Your task to perform on an android device: open app "Flipkart Online Shopping App" (install if not already installed) and enter user name: "fostered@gmail.com" and password: "negotiated" Image 0: 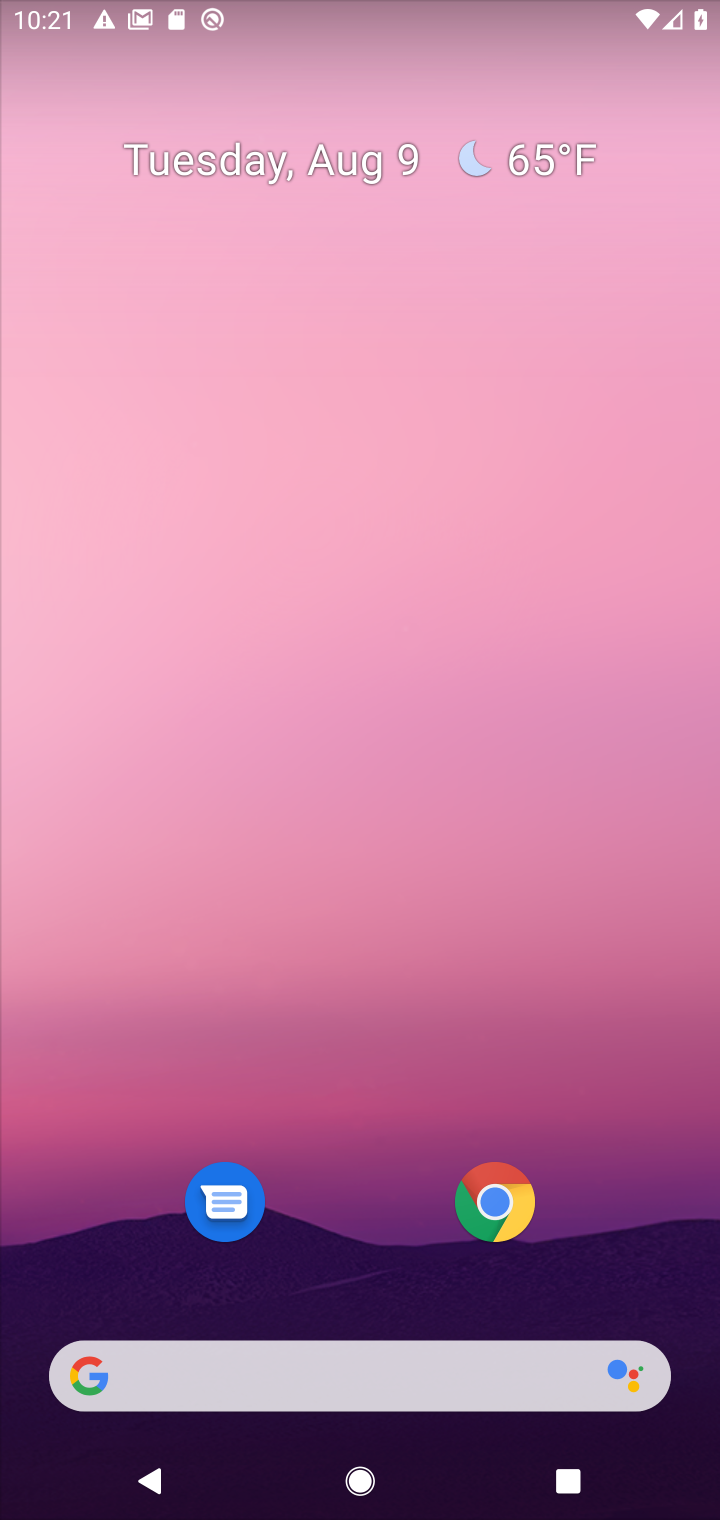
Step 0: drag from (382, 1281) to (440, 276)
Your task to perform on an android device: open app "Flipkart Online Shopping App" (install if not already installed) and enter user name: "fostered@gmail.com" and password: "negotiated" Image 1: 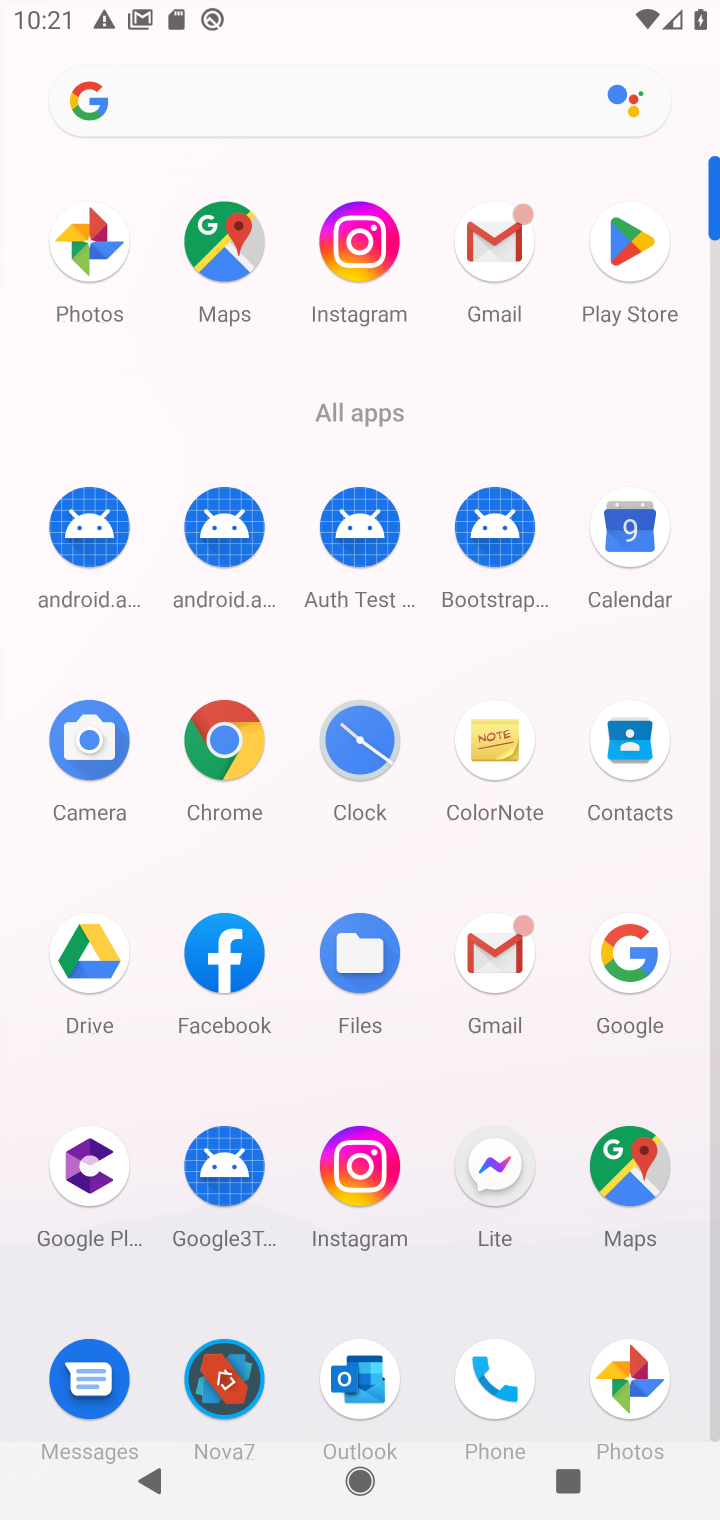
Step 1: click (631, 265)
Your task to perform on an android device: open app "Flipkart Online Shopping App" (install if not already installed) and enter user name: "fostered@gmail.com" and password: "negotiated" Image 2: 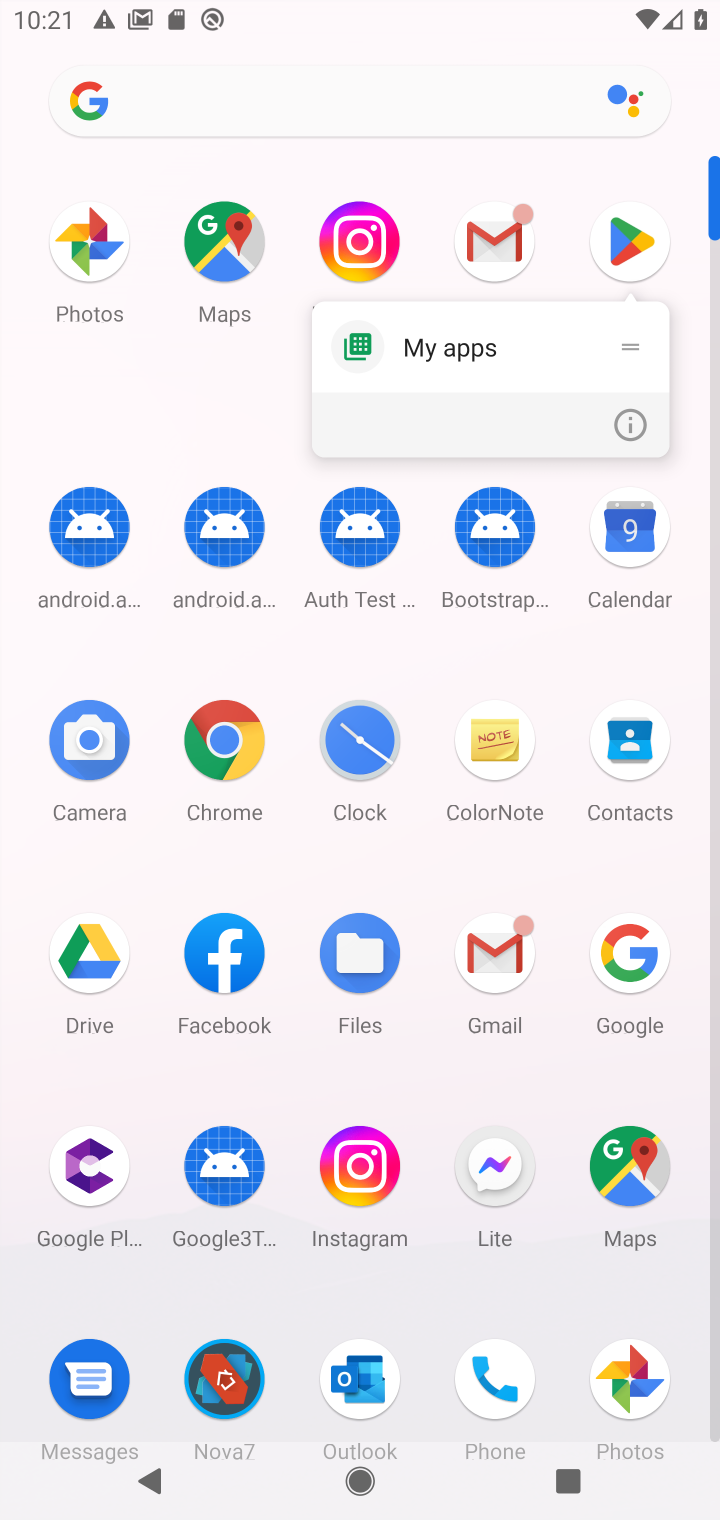
Step 2: click (603, 260)
Your task to perform on an android device: open app "Flipkart Online Shopping App" (install if not already installed) and enter user name: "fostered@gmail.com" and password: "negotiated" Image 3: 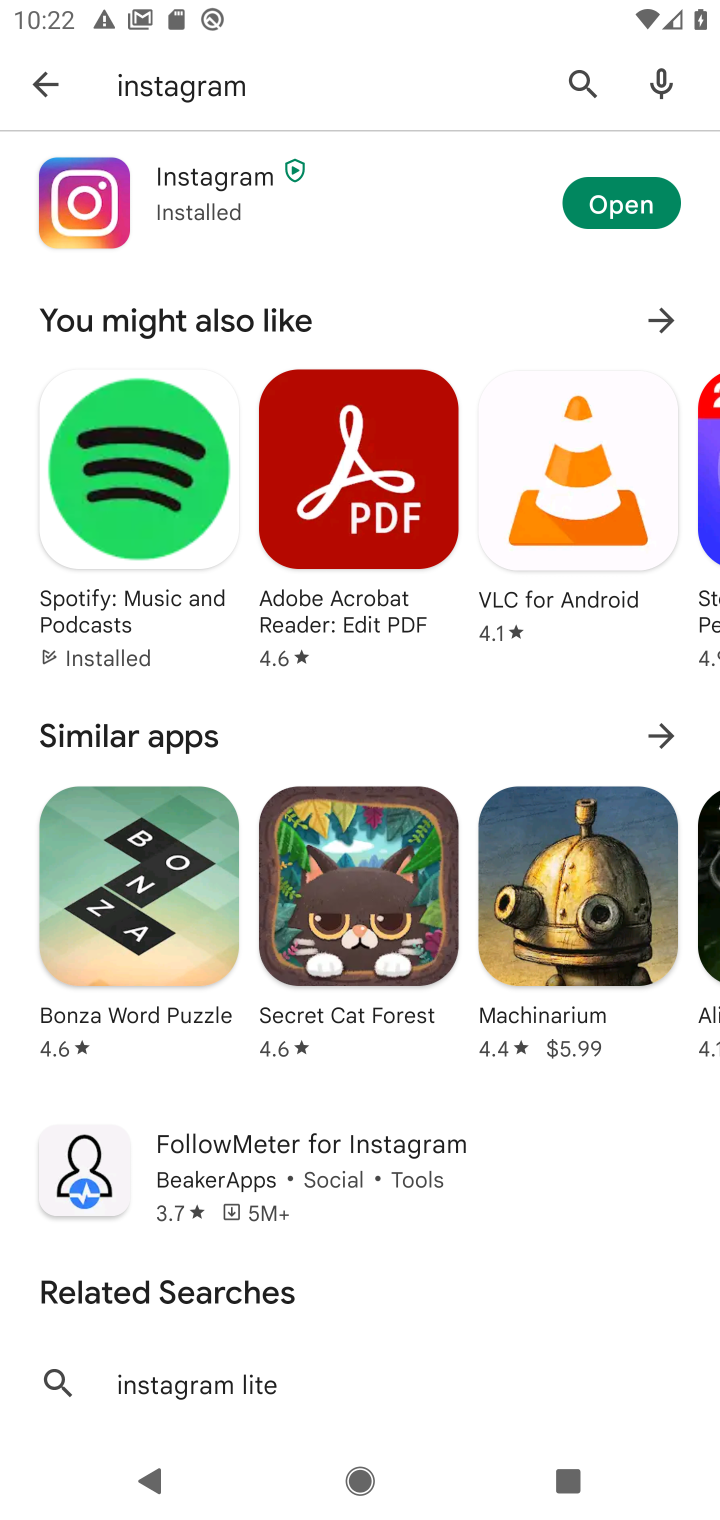
Step 3: click (587, 63)
Your task to perform on an android device: open app "Flipkart Online Shopping App" (install if not already installed) and enter user name: "fostered@gmail.com" and password: "negotiated" Image 4: 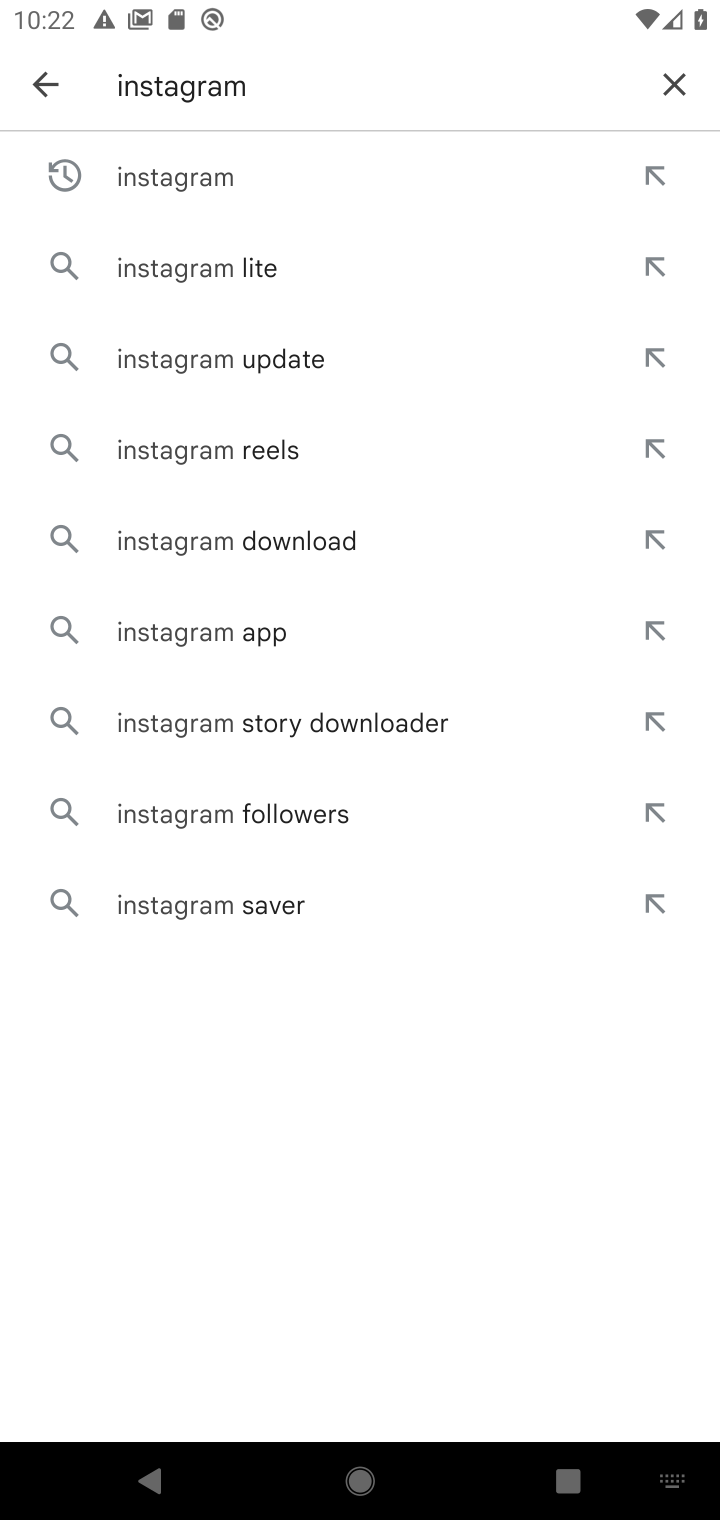
Step 4: click (688, 69)
Your task to perform on an android device: open app "Flipkart Online Shopping App" (install if not already installed) and enter user name: "fostered@gmail.com" and password: "negotiated" Image 5: 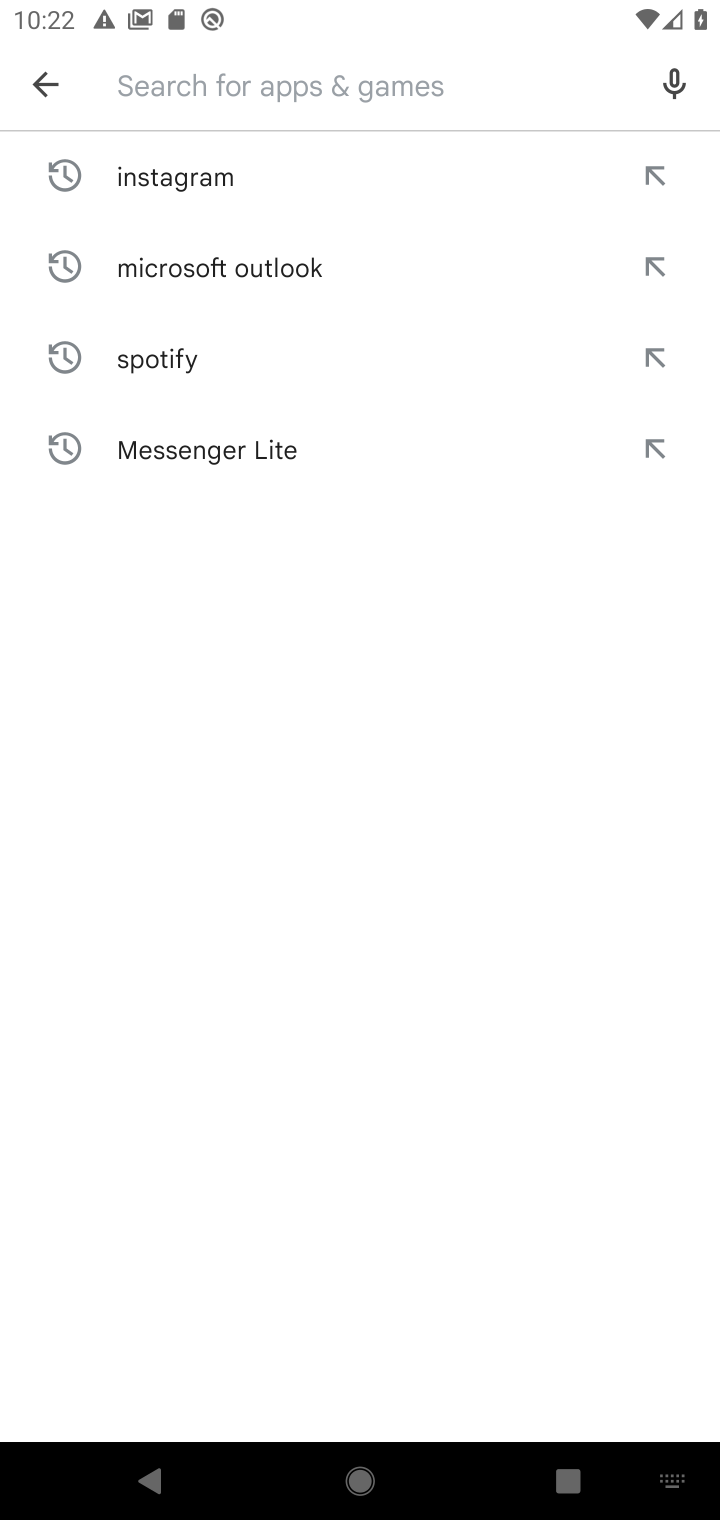
Step 5: type "flipkart"
Your task to perform on an android device: open app "Flipkart Online Shopping App" (install if not already installed) and enter user name: "fostered@gmail.com" and password: "negotiated" Image 6: 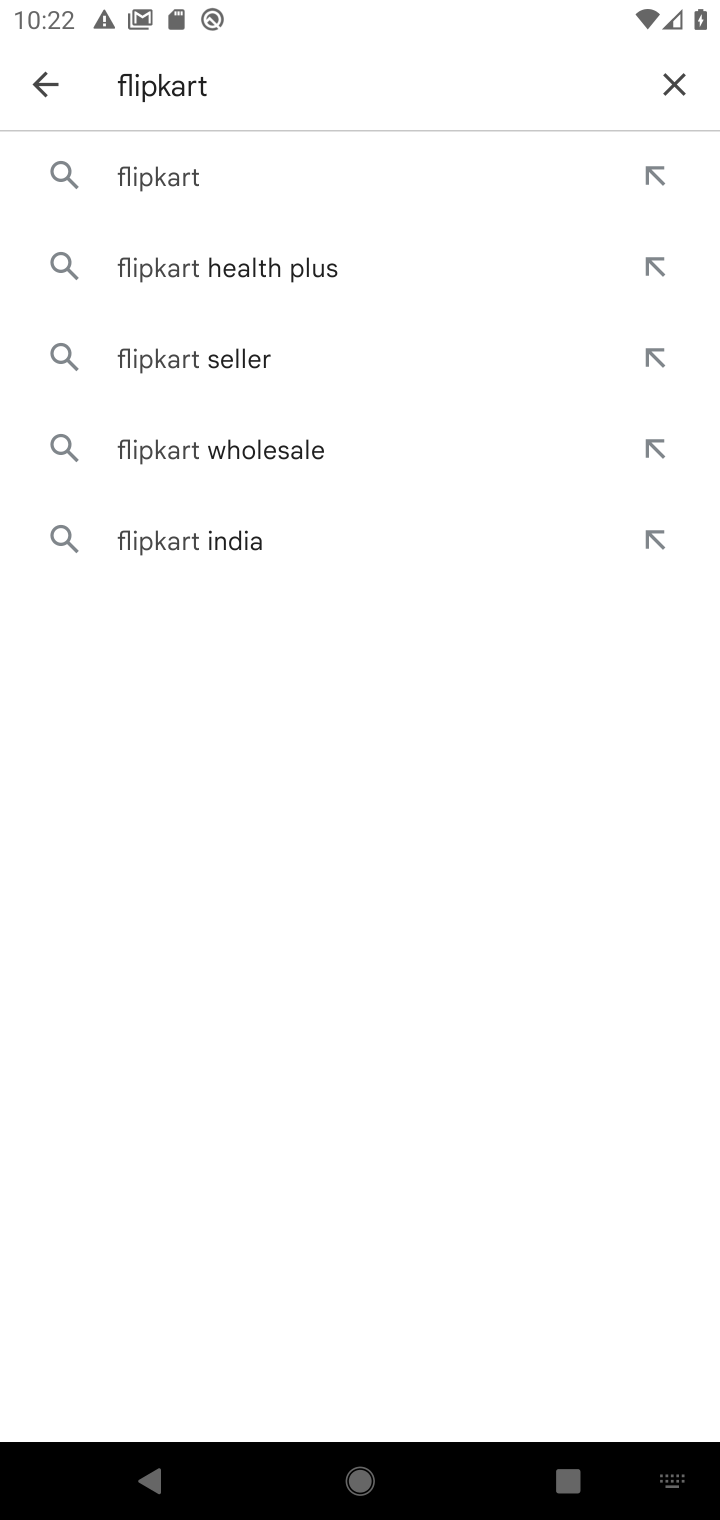
Step 6: click (245, 171)
Your task to perform on an android device: open app "Flipkart Online Shopping App" (install if not already installed) and enter user name: "fostered@gmail.com" and password: "negotiated" Image 7: 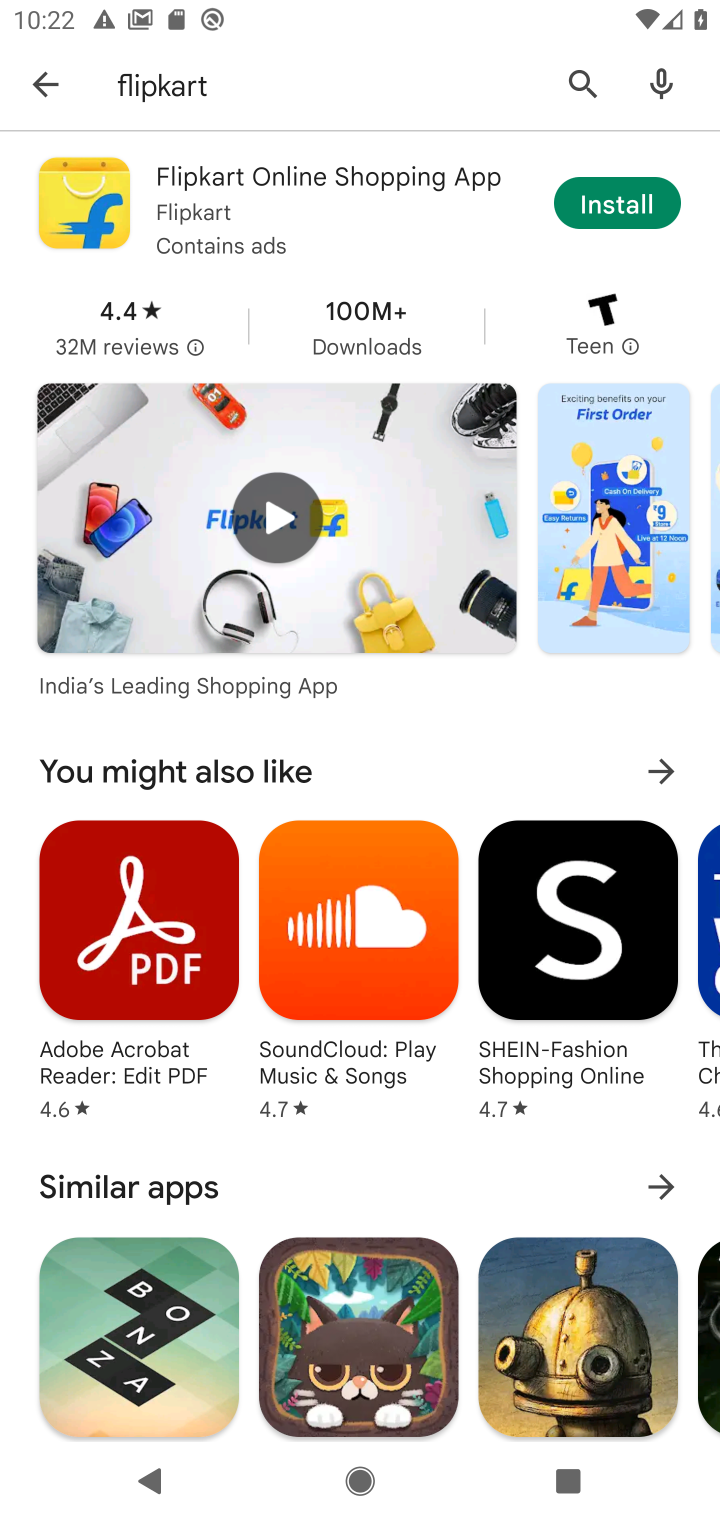
Step 7: click (611, 211)
Your task to perform on an android device: open app "Flipkart Online Shopping App" (install if not already installed) and enter user name: "fostered@gmail.com" and password: "negotiated" Image 8: 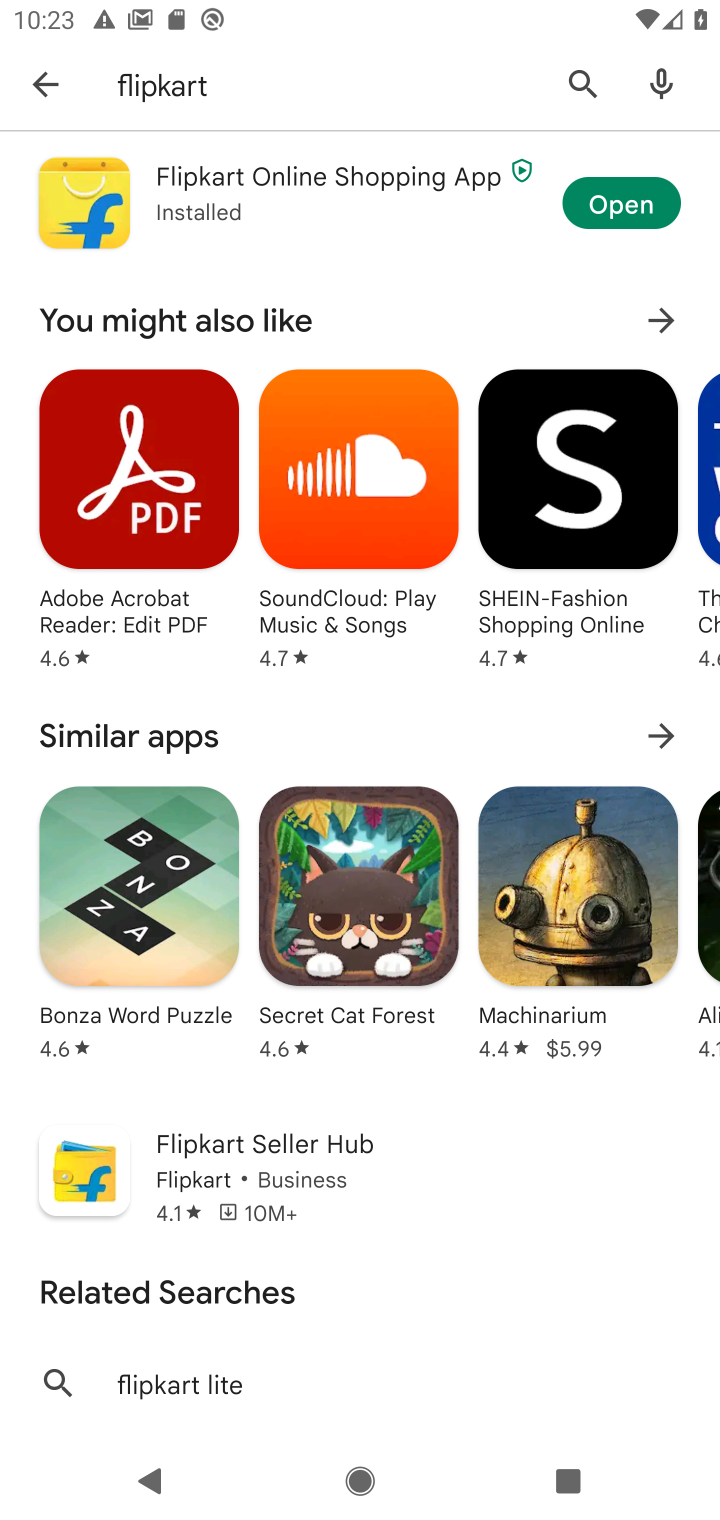
Step 8: click (625, 204)
Your task to perform on an android device: open app "Flipkart Online Shopping App" (install if not already installed) and enter user name: "fostered@gmail.com" and password: "negotiated" Image 9: 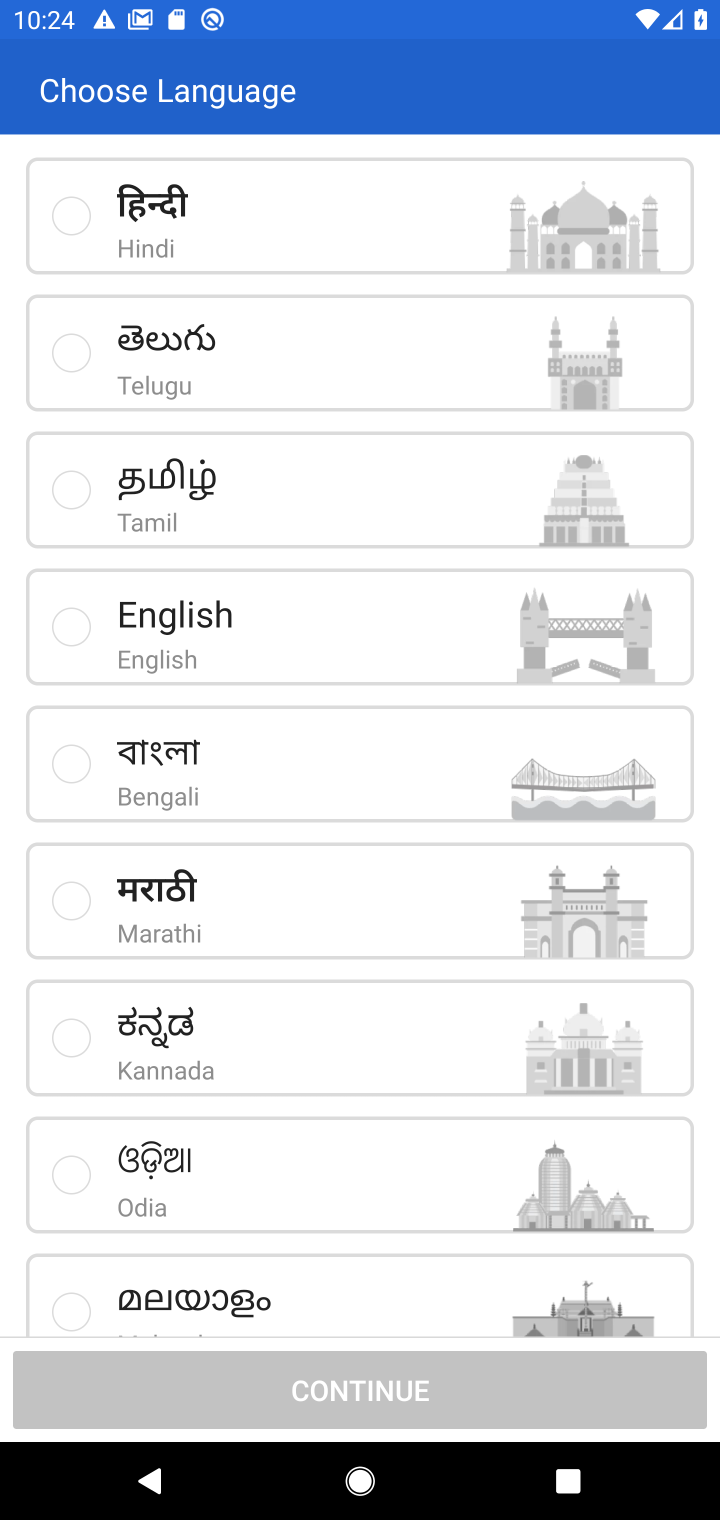
Step 9: click (95, 634)
Your task to perform on an android device: open app "Flipkart Online Shopping App" (install if not already installed) and enter user name: "fostered@gmail.com" and password: "negotiated" Image 10: 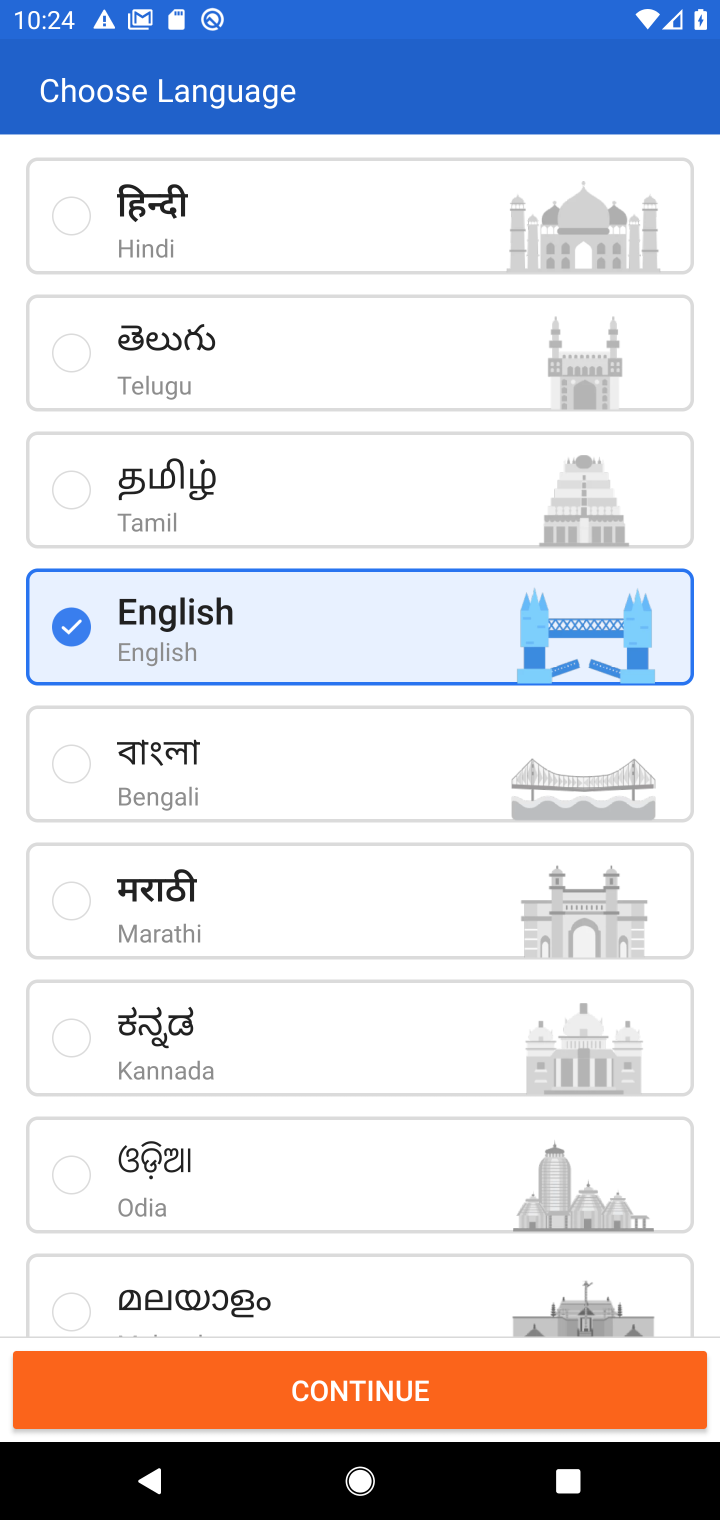
Step 10: click (349, 1403)
Your task to perform on an android device: open app "Flipkart Online Shopping App" (install if not already installed) and enter user name: "fostered@gmail.com" and password: "negotiated" Image 11: 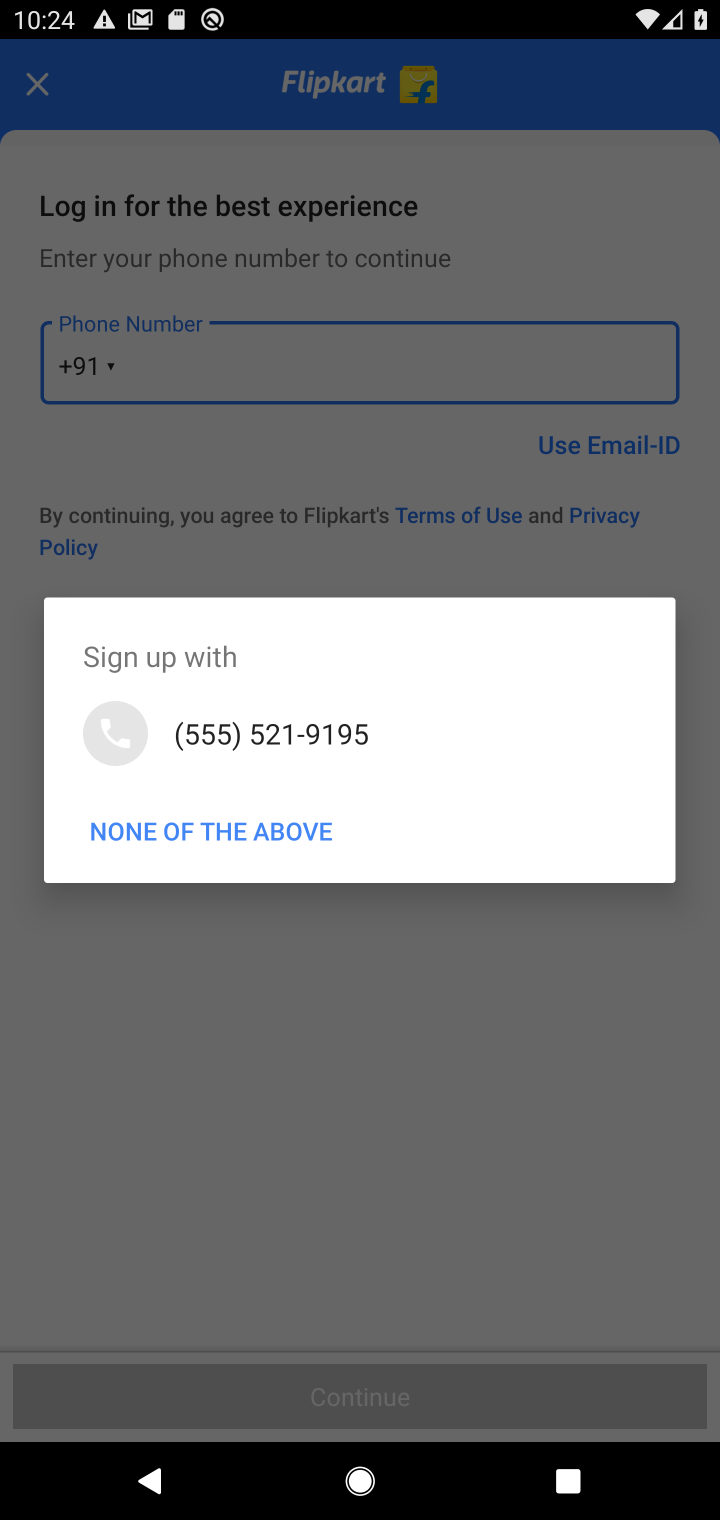
Step 11: click (287, 846)
Your task to perform on an android device: open app "Flipkart Online Shopping App" (install if not already installed) and enter user name: "fostered@gmail.com" and password: "negotiated" Image 12: 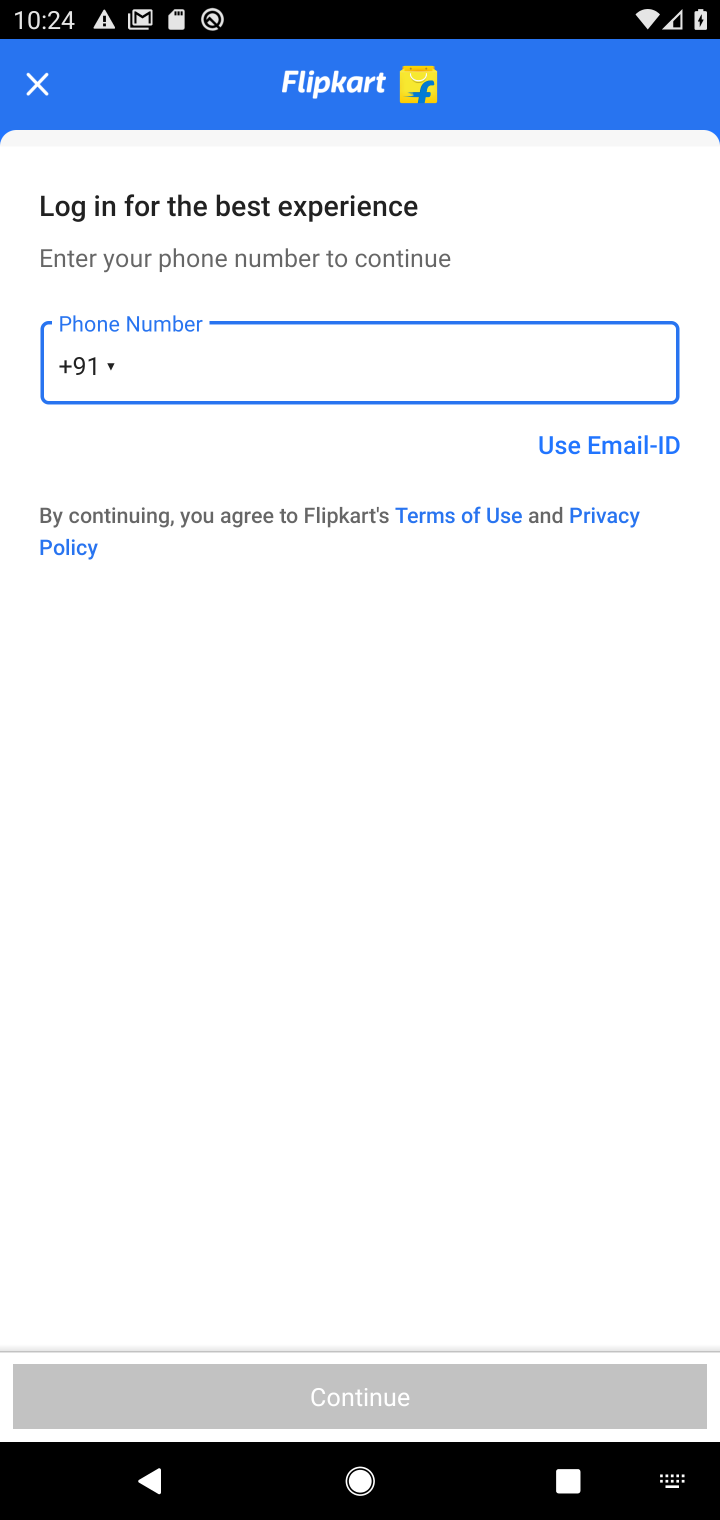
Step 12: click (628, 455)
Your task to perform on an android device: open app "Flipkart Online Shopping App" (install if not already installed) and enter user name: "fostered@gmail.com" and password: "negotiated" Image 13: 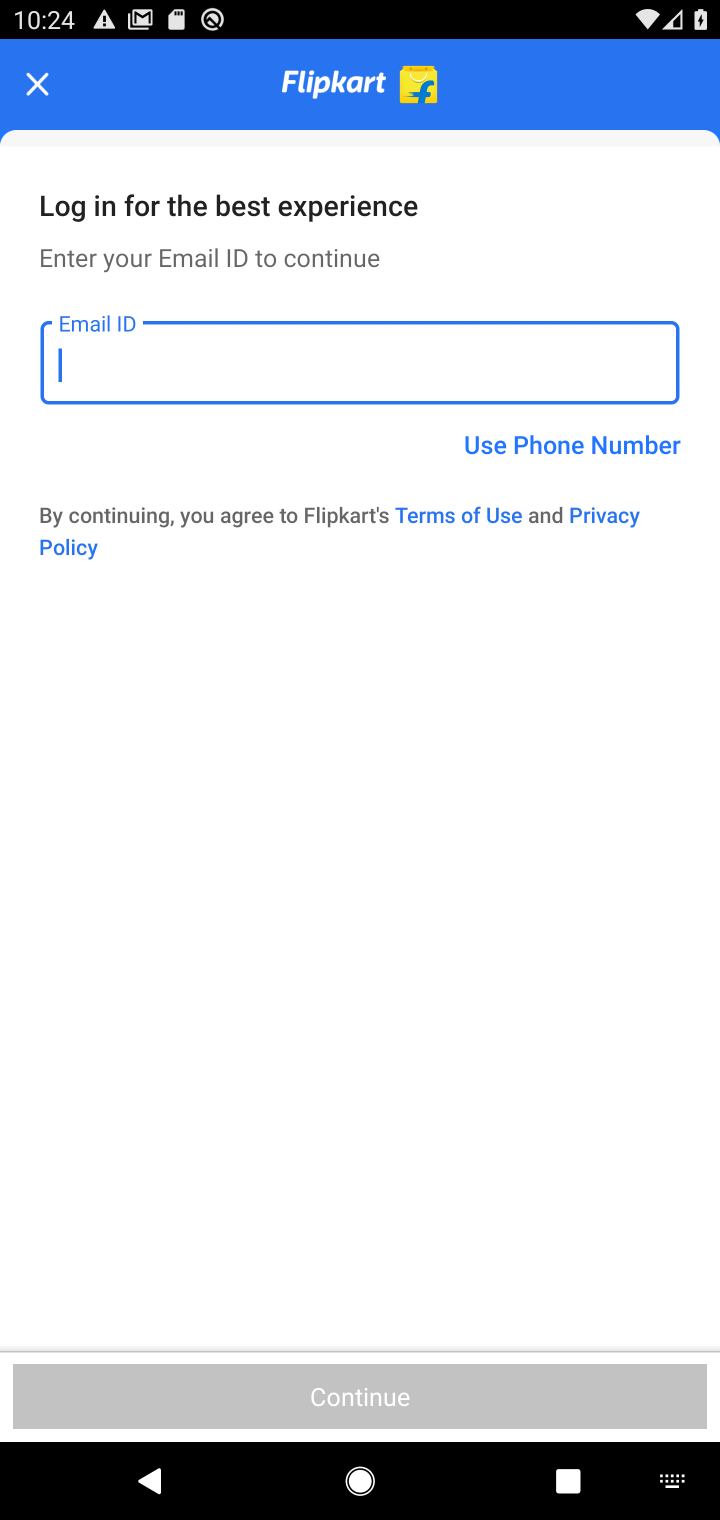
Step 13: type "fostered@gmail.com"
Your task to perform on an android device: open app "Flipkart Online Shopping App" (install if not already installed) and enter user name: "fostered@gmail.com" and password: "negotiated" Image 14: 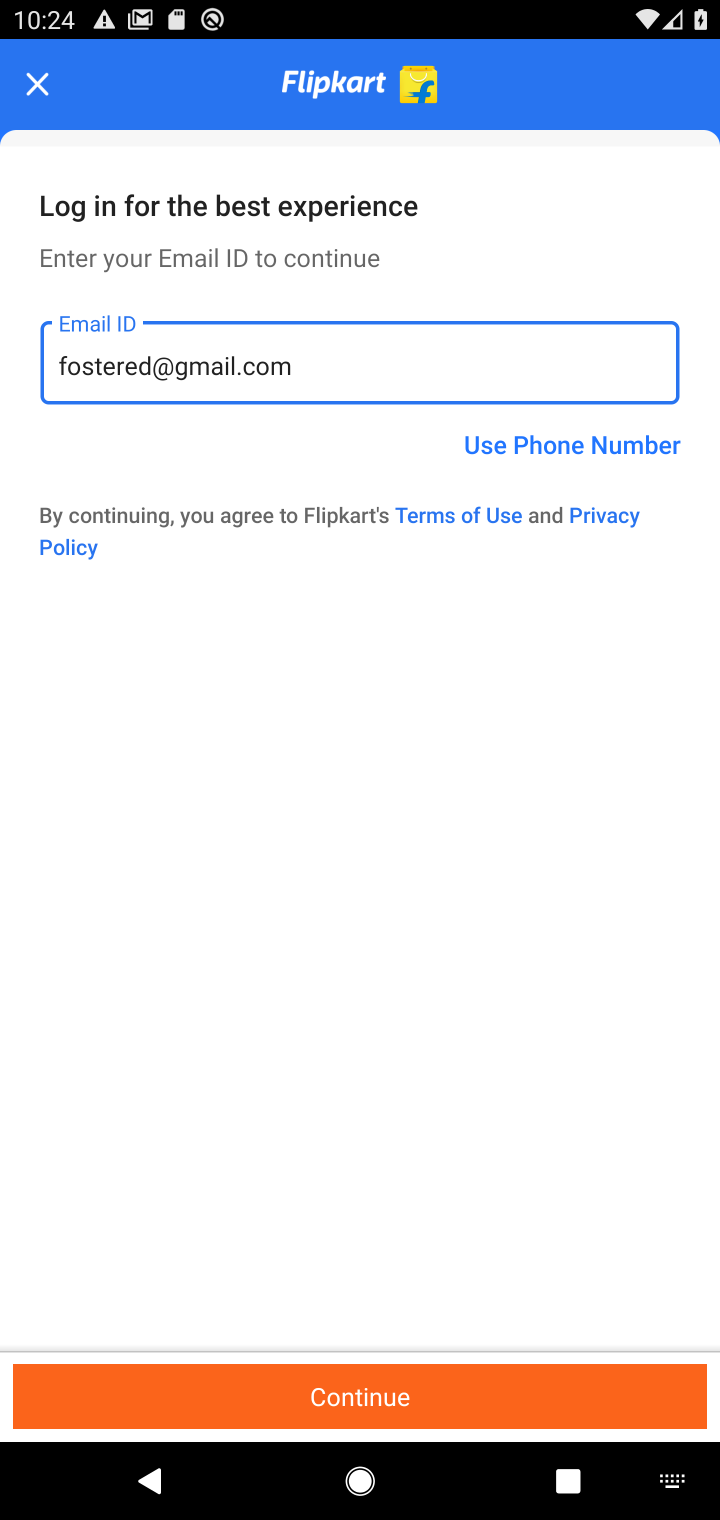
Step 14: click (456, 1397)
Your task to perform on an android device: open app "Flipkart Online Shopping App" (install if not already installed) and enter user name: "fostered@gmail.com" and password: "negotiated" Image 15: 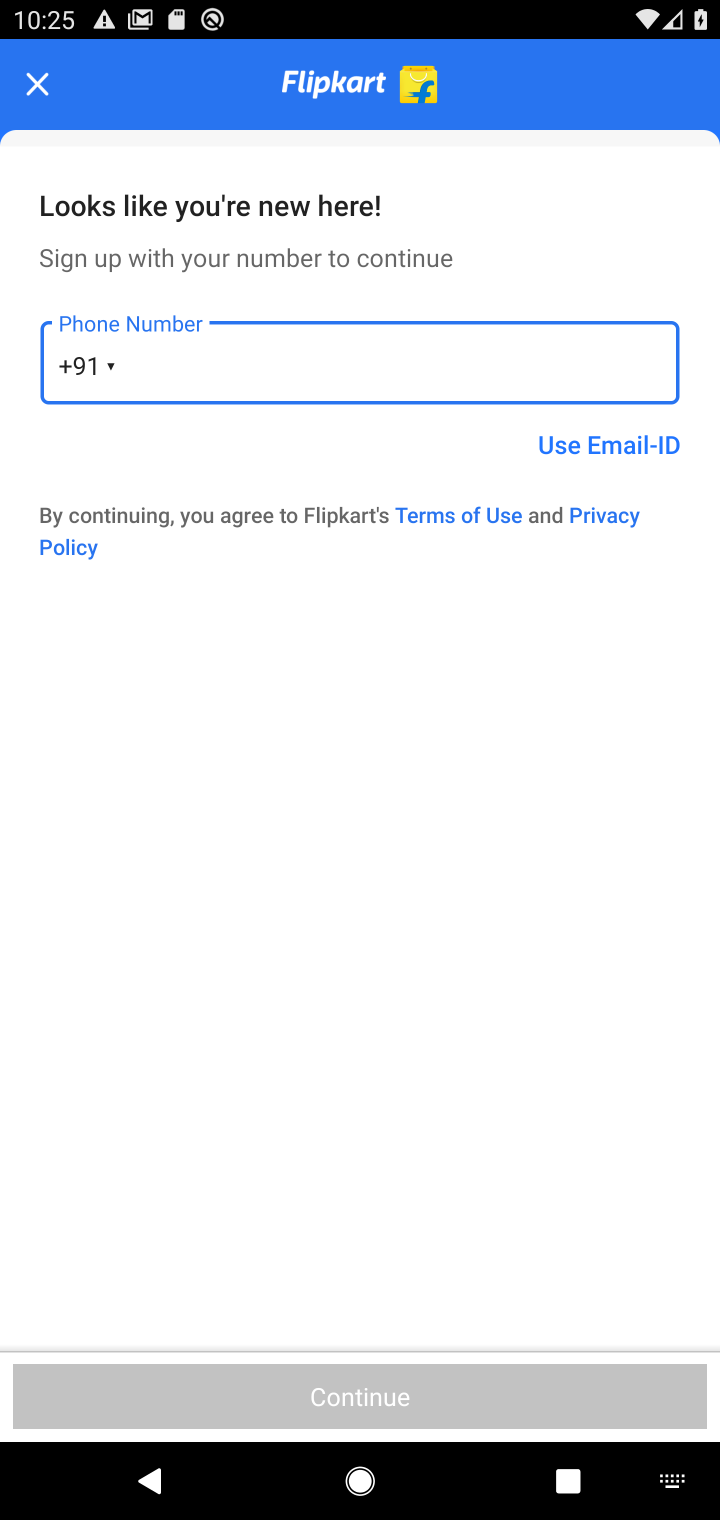
Step 15: task complete